Your task to perform on an android device: Open the Play Movies app and select the watchlist tab. Image 0: 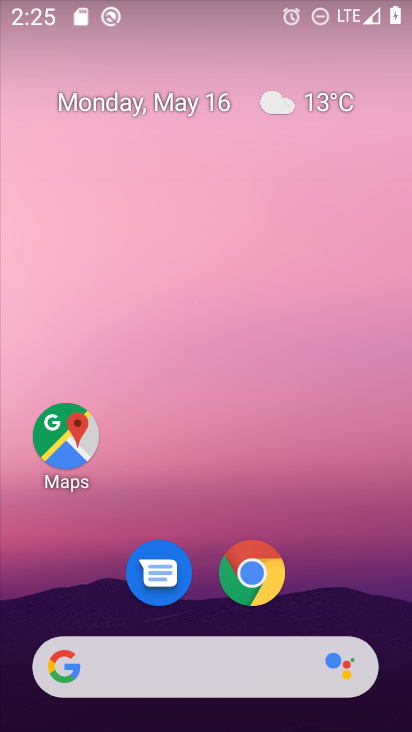
Step 0: drag from (253, 645) to (256, 153)
Your task to perform on an android device: Open the Play Movies app and select the watchlist tab. Image 1: 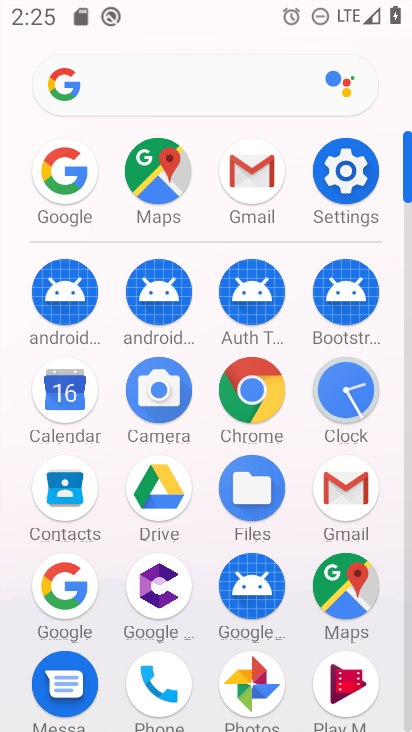
Step 1: drag from (268, 645) to (282, 287)
Your task to perform on an android device: Open the Play Movies app and select the watchlist tab. Image 2: 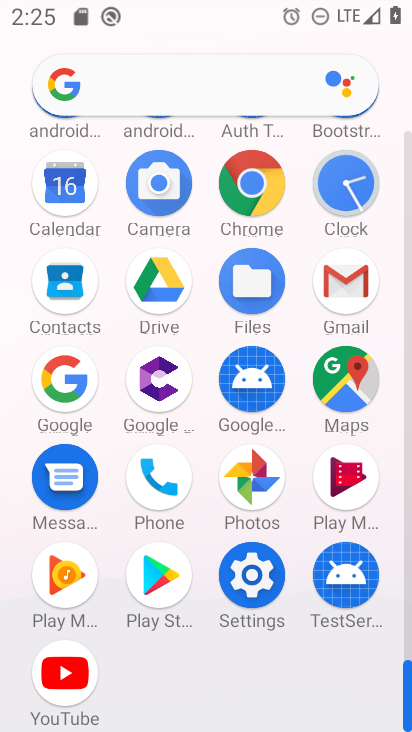
Step 2: click (346, 492)
Your task to perform on an android device: Open the Play Movies app and select the watchlist tab. Image 3: 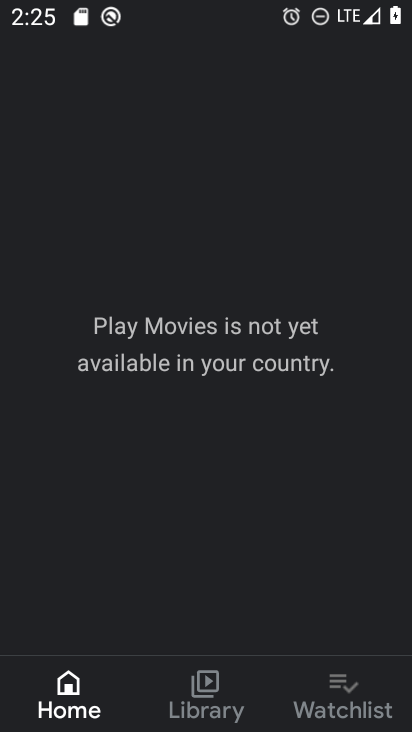
Step 3: drag from (333, 688) to (264, 688)
Your task to perform on an android device: Open the Play Movies app and select the watchlist tab. Image 4: 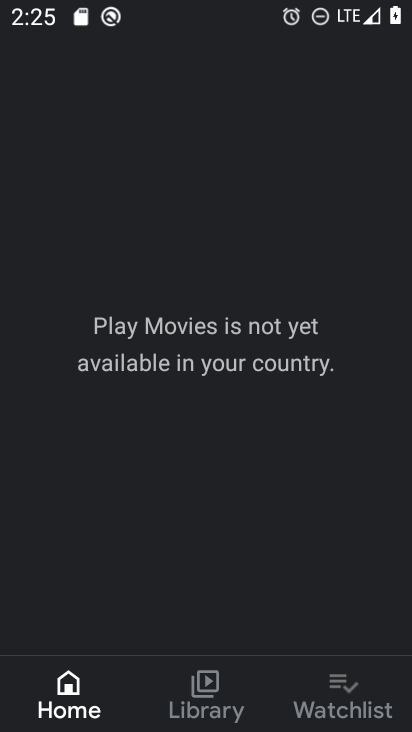
Step 4: click (308, 690)
Your task to perform on an android device: Open the Play Movies app and select the watchlist tab. Image 5: 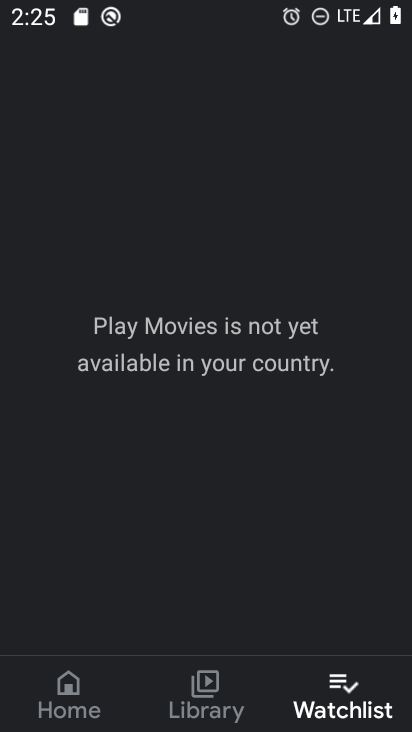
Step 5: task complete